Your task to perform on an android device: check storage Image 0: 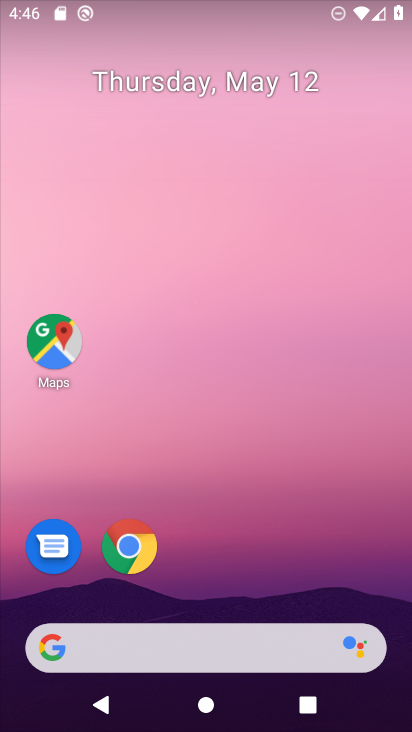
Step 0: drag from (265, 576) to (303, 292)
Your task to perform on an android device: check storage Image 1: 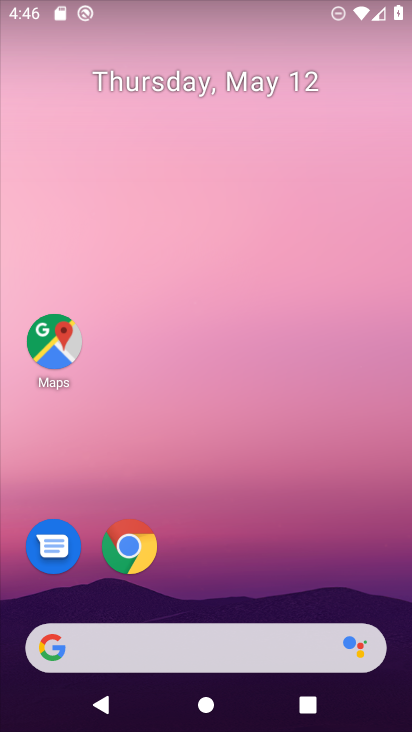
Step 1: drag from (214, 559) to (265, 218)
Your task to perform on an android device: check storage Image 2: 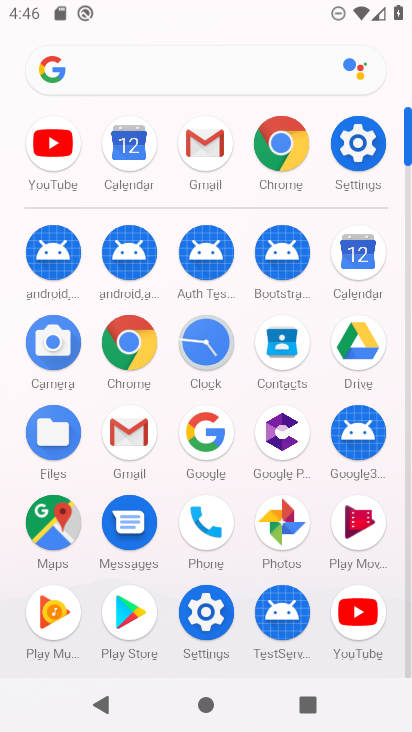
Step 2: click (363, 130)
Your task to perform on an android device: check storage Image 3: 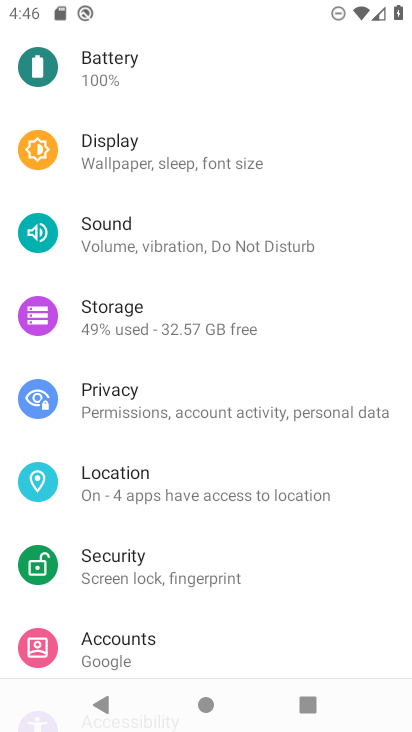
Step 3: click (140, 309)
Your task to perform on an android device: check storage Image 4: 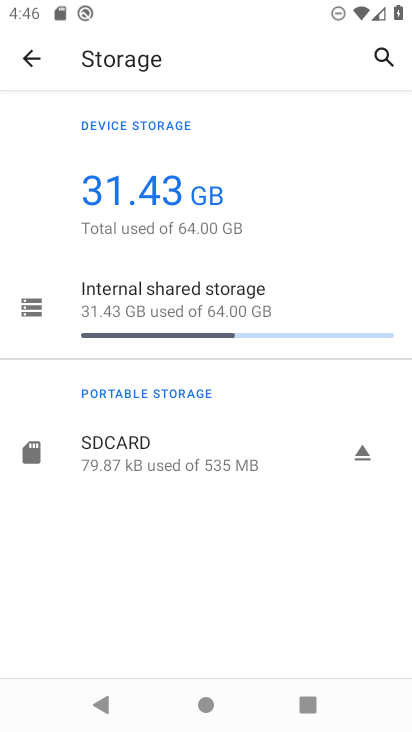
Step 4: task complete